Your task to perform on an android device: change the clock display to digital Image 0: 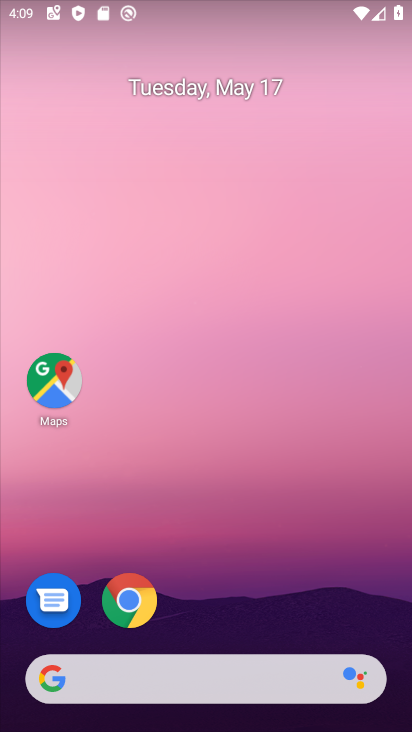
Step 0: drag from (223, 581) to (240, 130)
Your task to perform on an android device: change the clock display to digital Image 1: 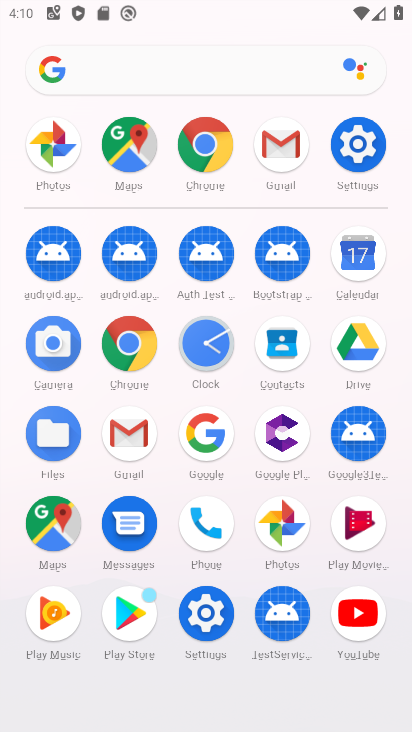
Step 1: click (193, 342)
Your task to perform on an android device: change the clock display to digital Image 2: 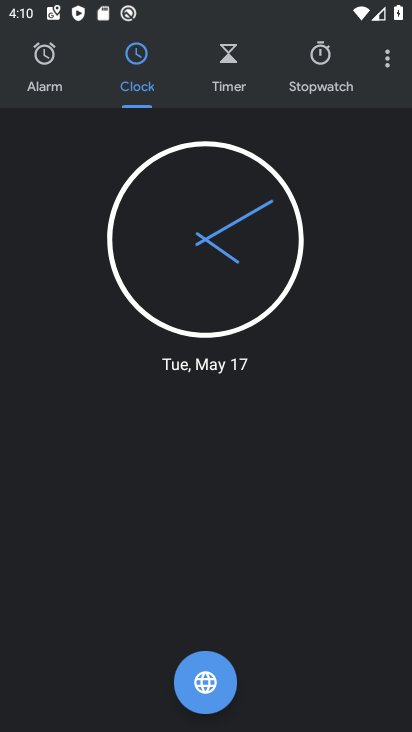
Step 2: click (385, 64)
Your task to perform on an android device: change the clock display to digital Image 3: 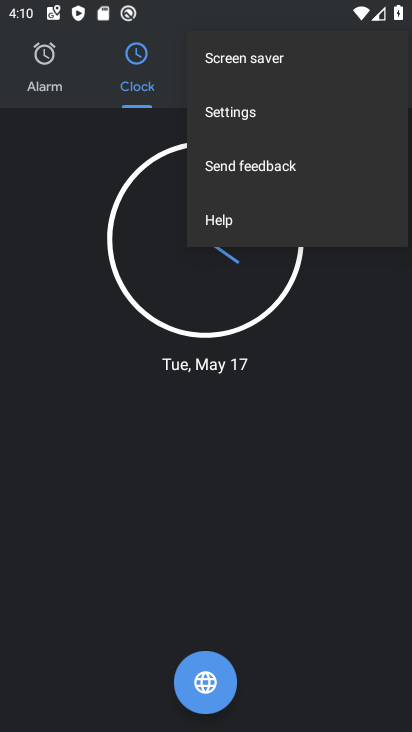
Step 3: click (245, 119)
Your task to perform on an android device: change the clock display to digital Image 4: 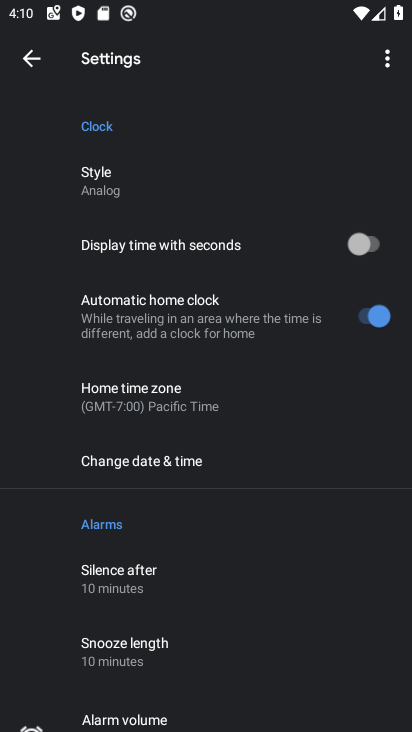
Step 4: click (148, 203)
Your task to perform on an android device: change the clock display to digital Image 5: 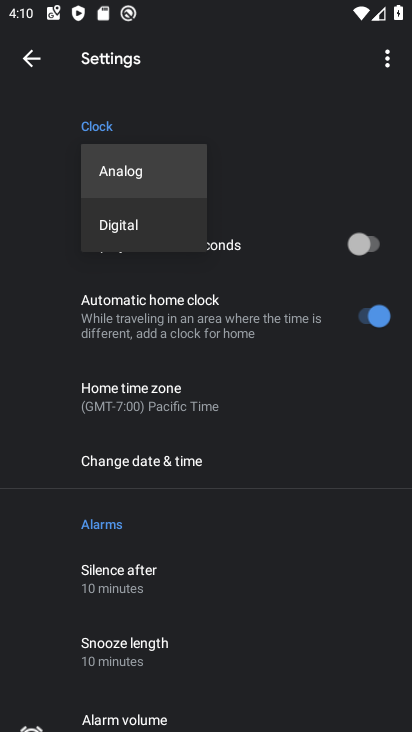
Step 5: click (142, 226)
Your task to perform on an android device: change the clock display to digital Image 6: 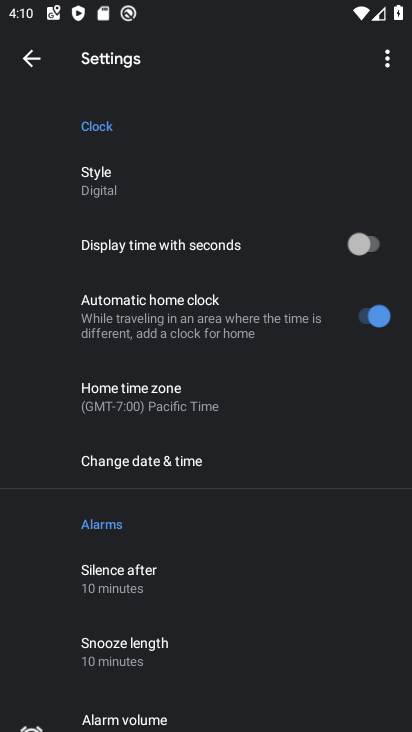
Step 6: task complete